Your task to perform on an android device: Go to Android settings Image 0: 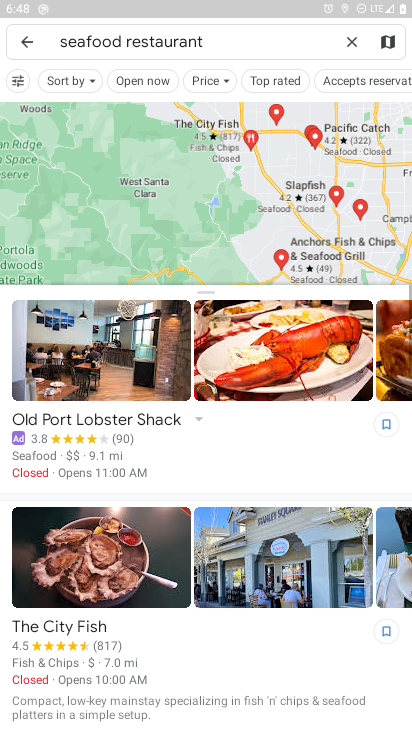
Step 0: press home button
Your task to perform on an android device: Go to Android settings Image 1: 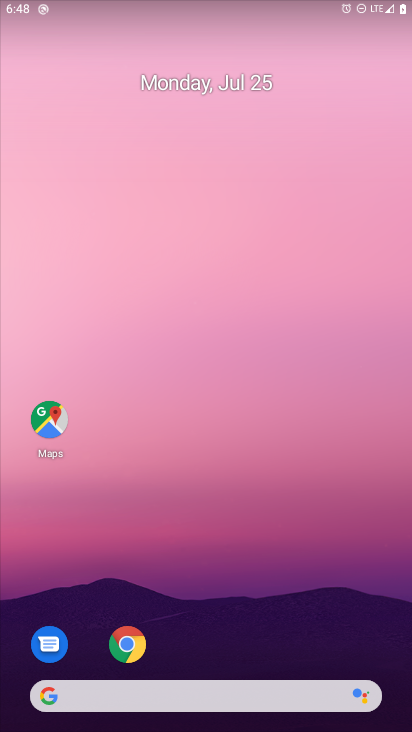
Step 1: drag from (243, 656) to (229, 104)
Your task to perform on an android device: Go to Android settings Image 2: 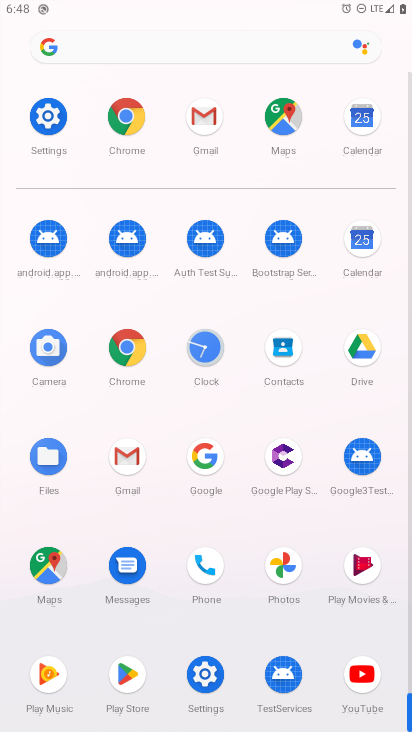
Step 2: click (41, 112)
Your task to perform on an android device: Go to Android settings Image 3: 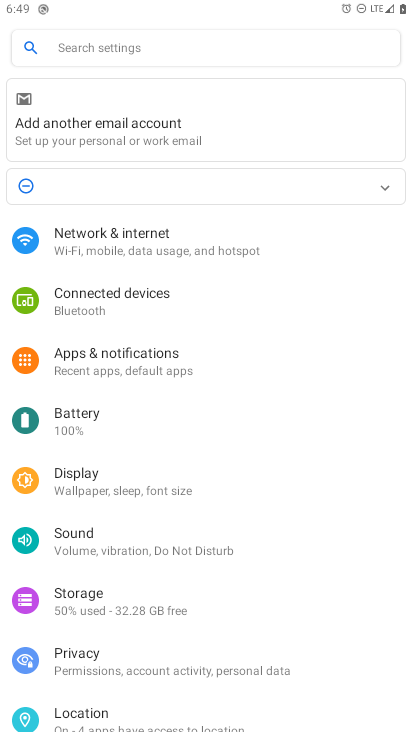
Step 3: task complete